Your task to perform on an android device: turn on showing notifications on the lock screen Image 0: 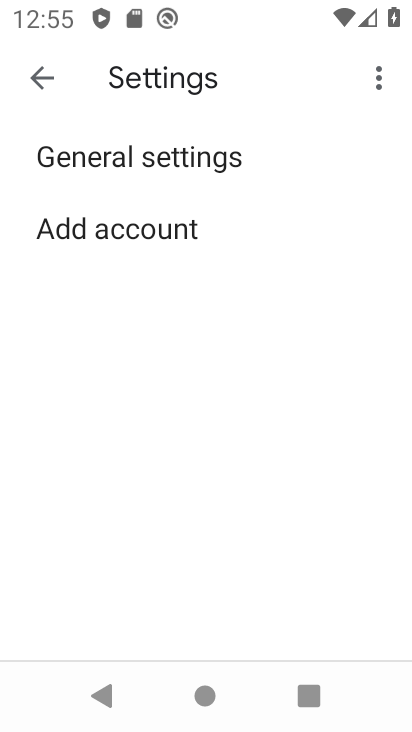
Step 0: press home button
Your task to perform on an android device: turn on showing notifications on the lock screen Image 1: 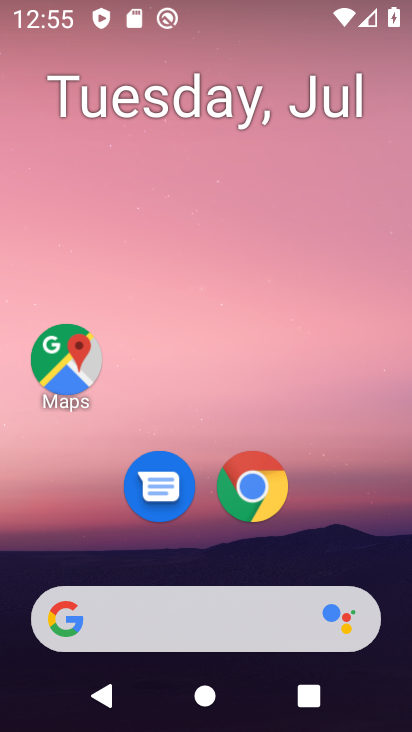
Step 1: drag from (353, 537) to (368, 196)
Your task to perform on an android device: turn on showing notifications on the lock screen Image 2: 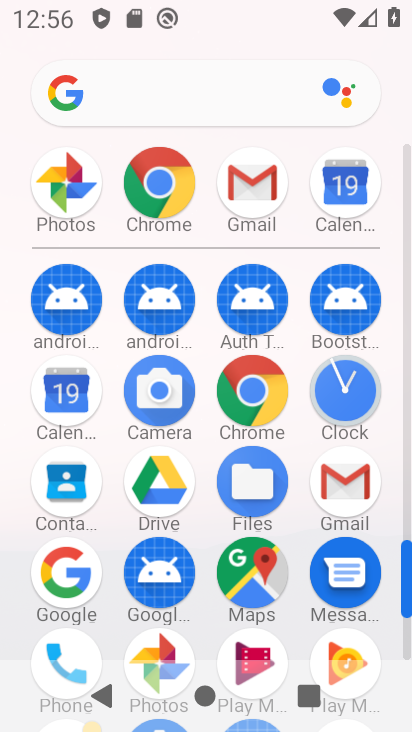
Step 2: drag from (389, 511) to (394, 271)
Your task to perform on an android device: turn on showing notifications on the lock screen Image 3: 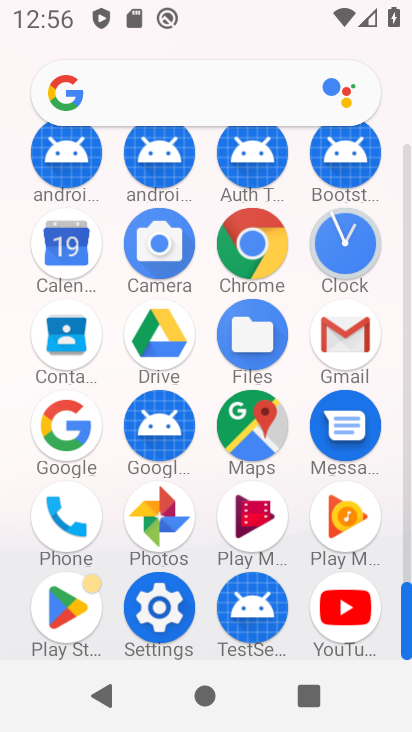
Step 3: click (151, 601)
Your task to perform on an android device: turn on showing notifications on the lock screen Image 4: 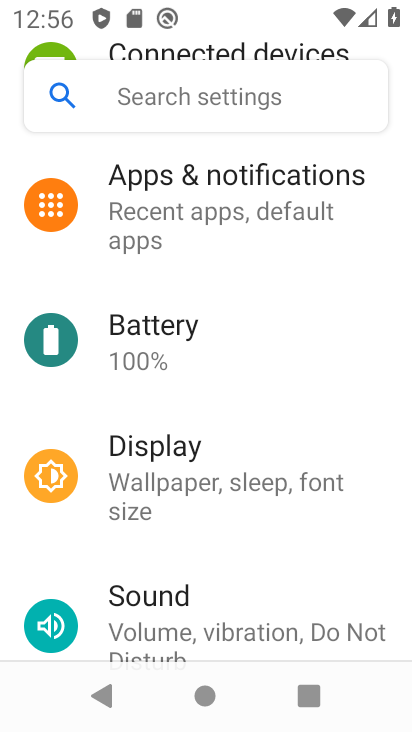
Step 4: drag from (360, 295) to (369, 455)
Your task to perform on an android device: turn on showing notifications on the lock screen Image 5: 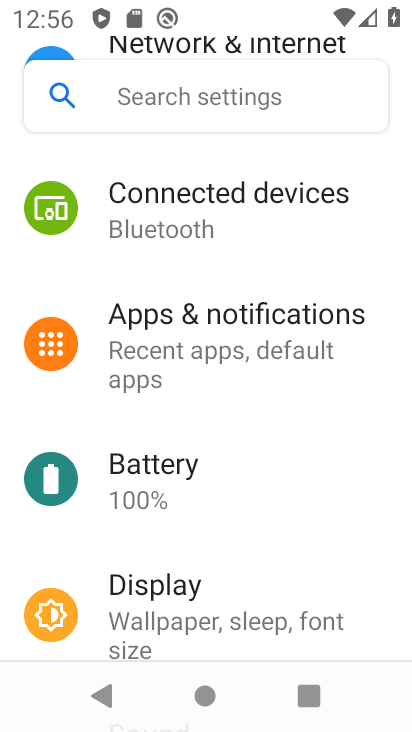
Step 5: drag from (379, 242) to (375, 403)
Your task to perform on an android device: turn on showing notifications on the lock screen Image 6: 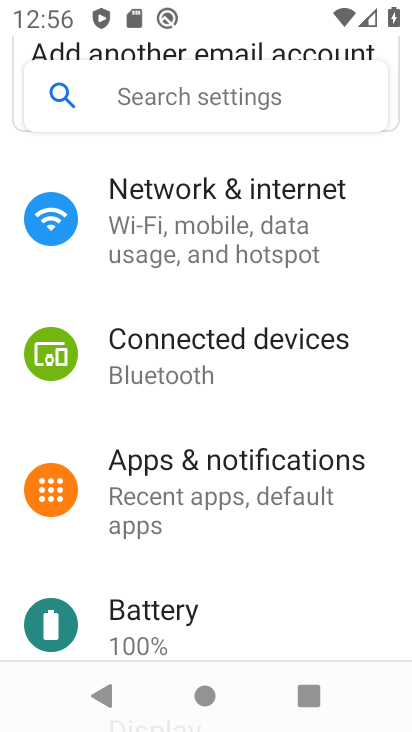
Step 6: drag from (380, 271) to (365, 479)
Your task to perform on an android device: turn on showing notifications on the lock screen Image 7: 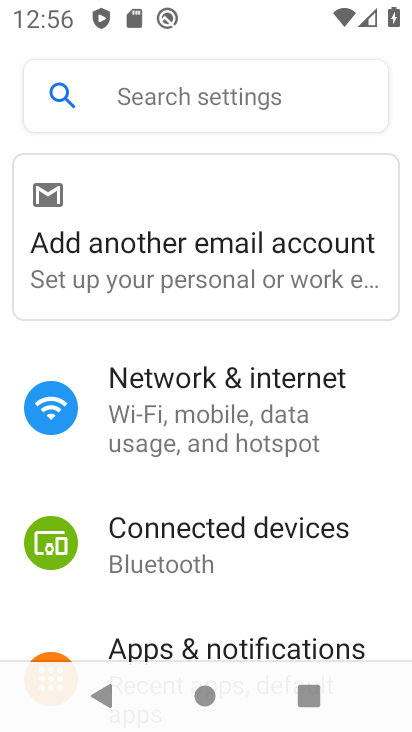
Step 7: drag from (365, 479) to (365, 362)
Your task to perform on an android device: turn on showing notifications on the lock screen Image 8: 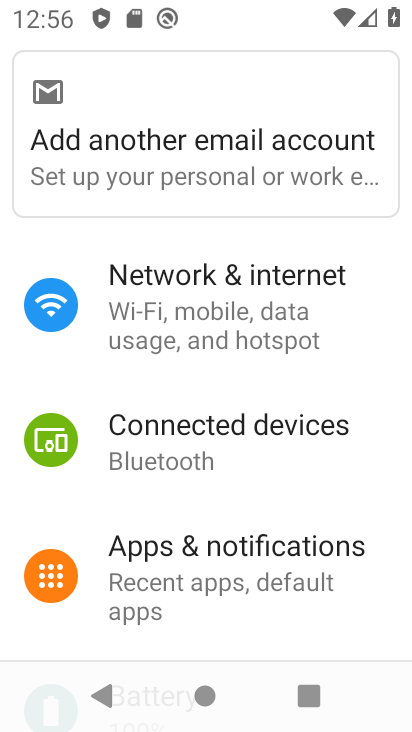
Step 8: drag from (353, 500) to (364, 378)
Your task to perform on an android device: turn on showing notifications on the lock screen Image 9: 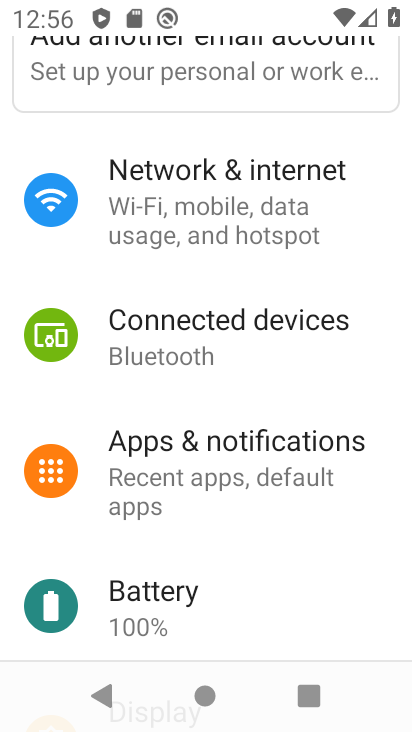
Step 9: drag from (348, 523) to (353, 394)
Your task to perform on an android device: turn on showing notifications on the lock screen Image 10: 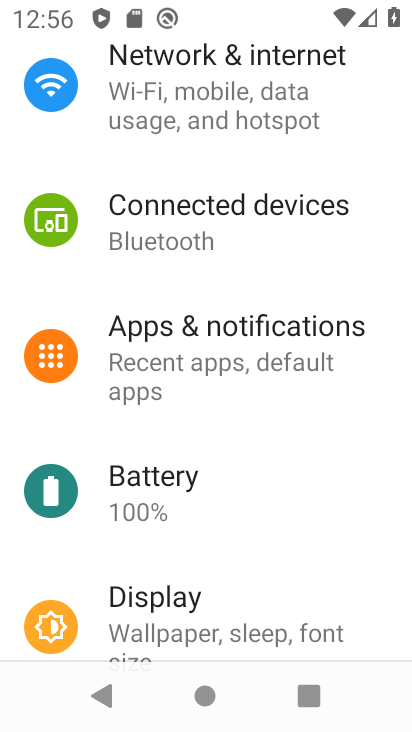
Step 10: drag from (346, 503) to (347, 389)
Your task to perform on an android device: turn on showing notifications on the lock screen Image 11: 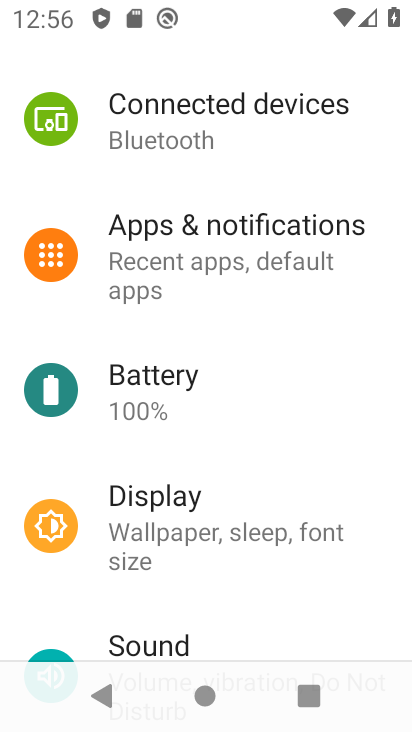
Step 11: click (314, 260)
Your task to perform on an android device: turn on showing notifications on the lock screen Image 12: 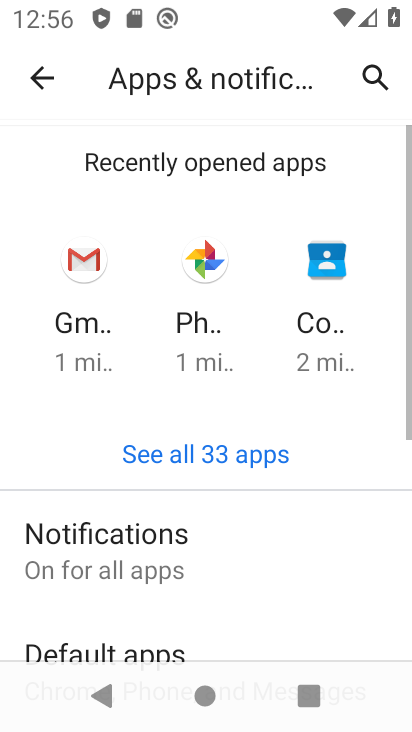
Step 12: drag from (289, 523) to (291, 329)
Your task to perform on an android device: turn on showing notifications on the lock screen Image 13: 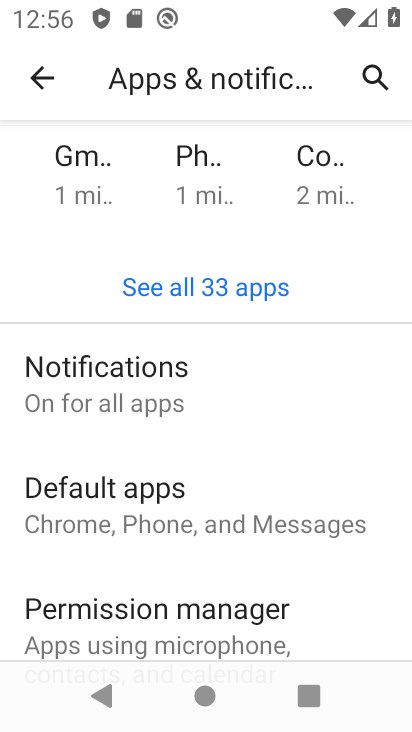
Step 13: click (207, 395)
Your task to perform on an android device: turn on showing notifications on the lock screen Image 14: 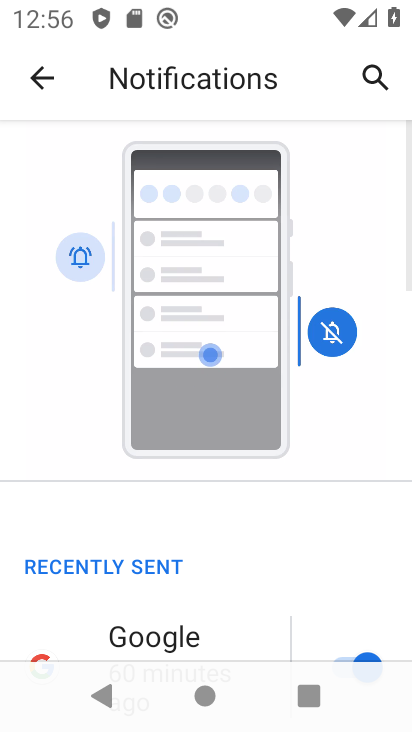
Step 14: drag from (295, 509) to (305, 373)
Your task to perform on an android device: turn on showing notifications on the lock screen Image 15: 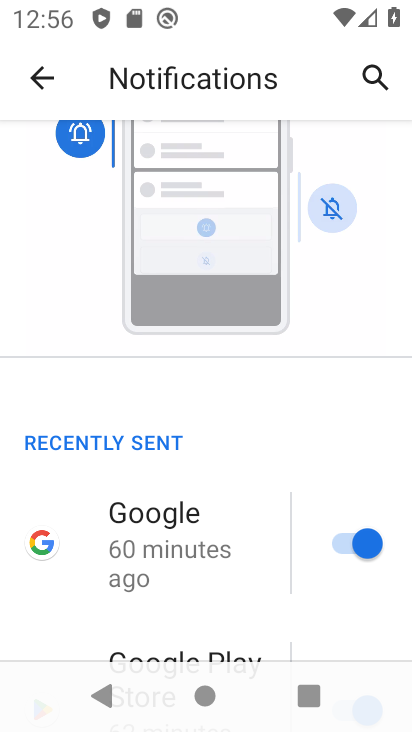
Step 15: drag from (241, 567) to (256, 436)
Your task to perform on an android device: turn on showing notifications on the lock screen Image 16: 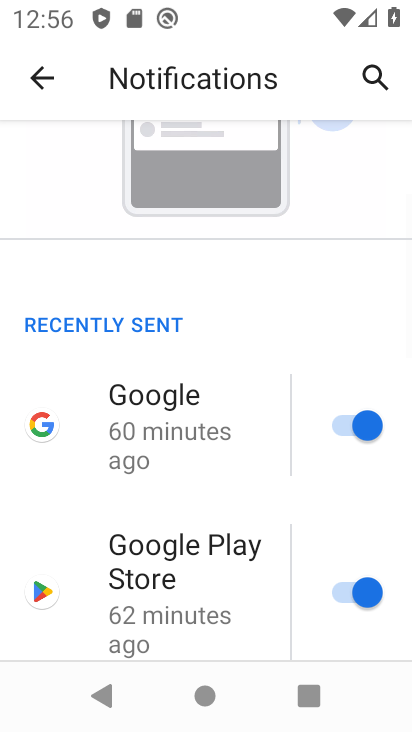
Step 16: drag from (241, 580) to (253, 421)
Your task to perform on an android device: turn on showing notifications on the lock screen Image 17: 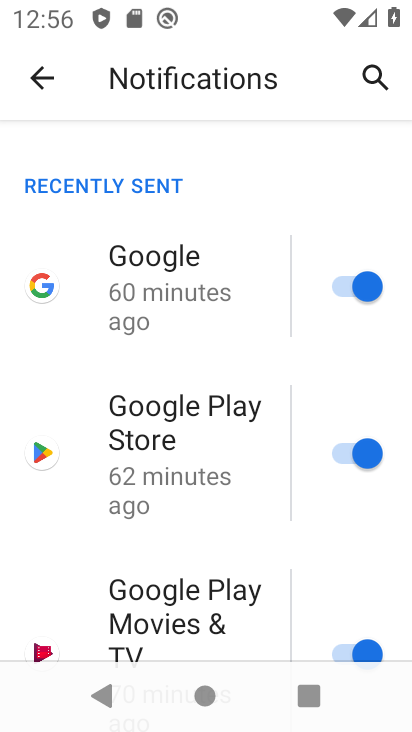
Step 17: drag from (231, 594) to (242, 467)
Your task to perform on an android device: turn on showing notifications on the lock screen Image 18: 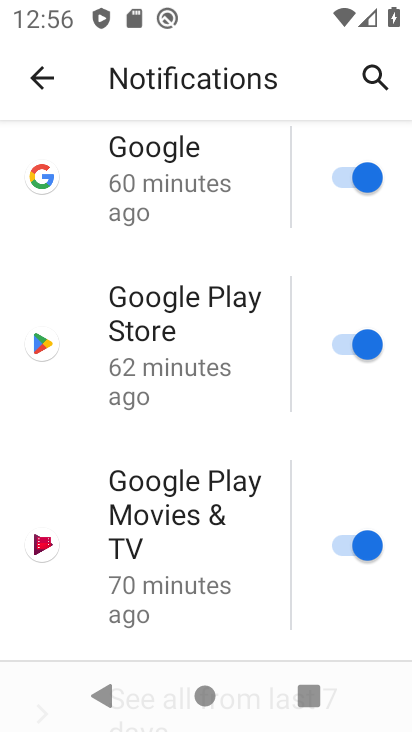
Step 18: drag from (233, 582) to (243, 440)
Your task to perform on an android device: turn on showing notifications on the lock screen Image 19: 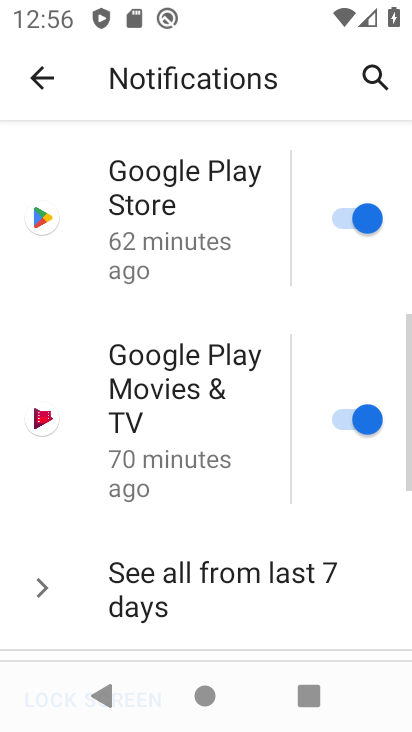
Step 19: drag from (243, 589) to (246, 441)
Your task to perform on an android device: turn on showing notifications on the lock screen Image 20: 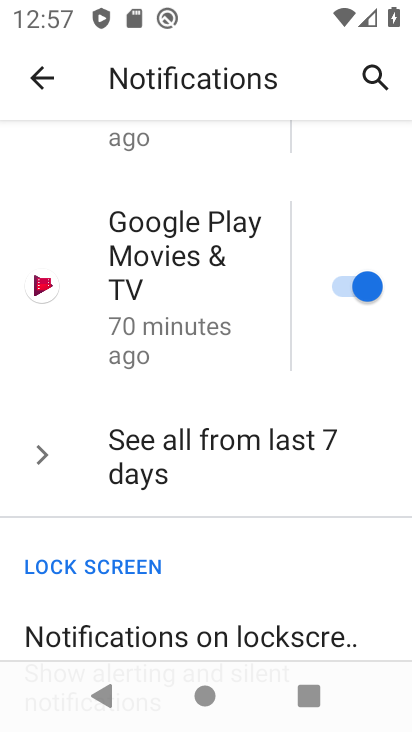
Step 20: drag from (239, 546) to (246, 403)
Your task to perform on an android device: turn on showing notifications on the lock screen Image 21: 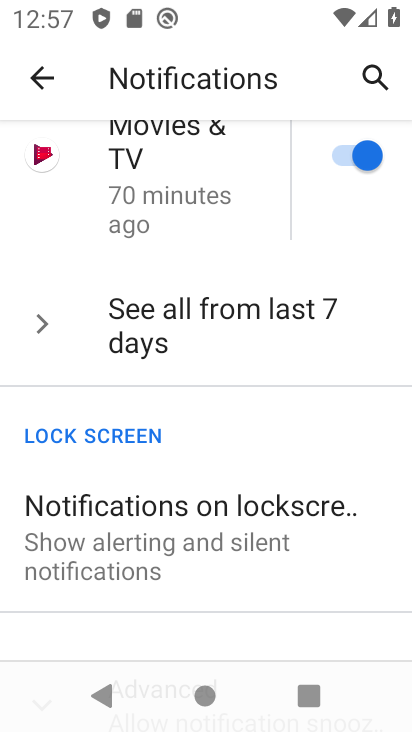
Step 21: click (246, 536)
Your task to perform on an android device: turn on showing notifications on the lock screen Image 22: 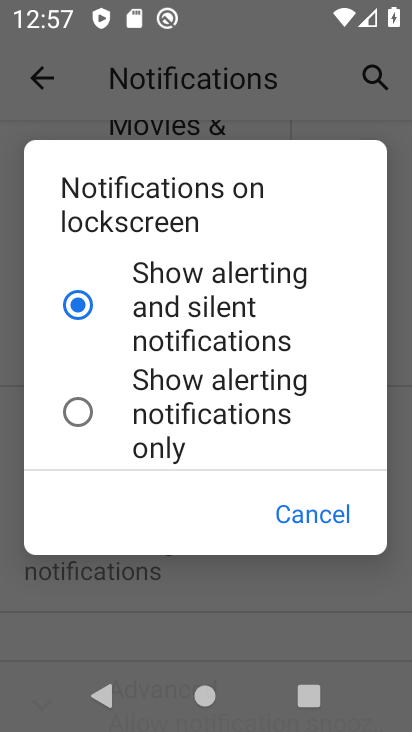
Step 22: task complete